Your task to perform on an android device: uninstall "LinkedIn" Image 0: 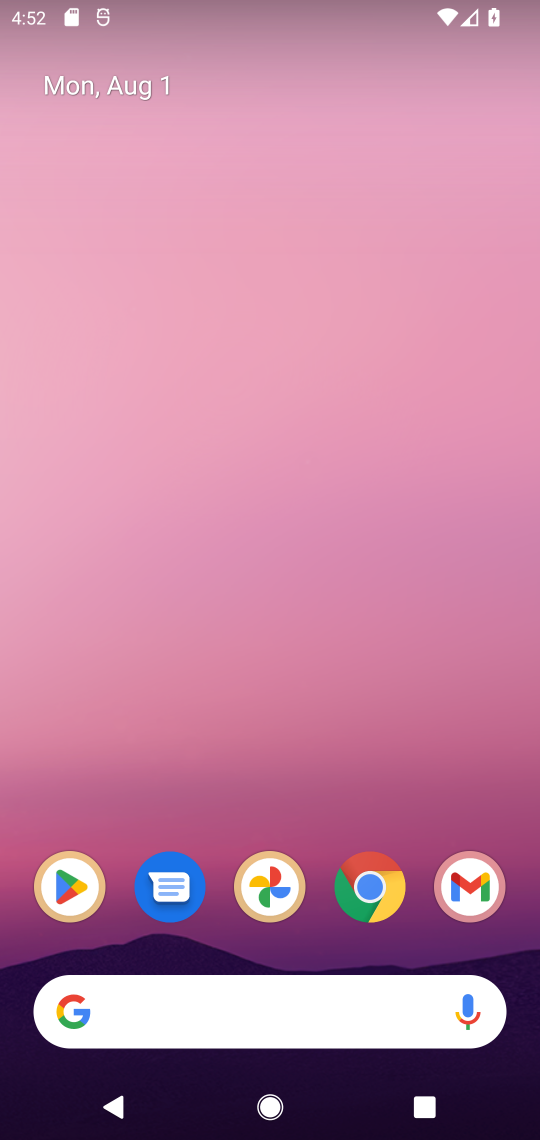
Step 0: drag from (278, 951) to (215, 278)
Your task to perform on an android device: uninstall "LinkedIn" Image 1: 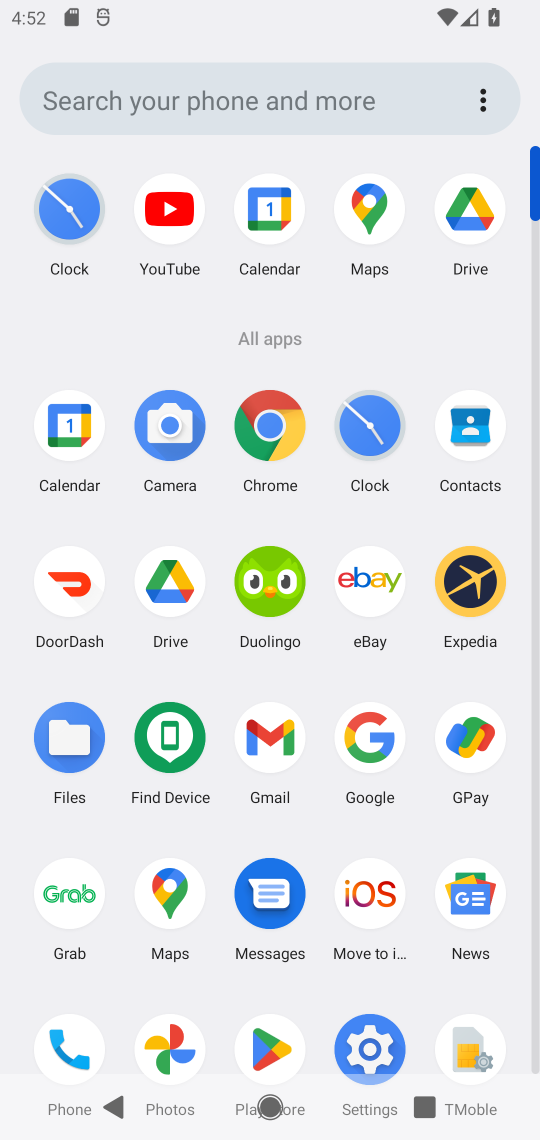
Step 1: click (258, 1033)
Your task to perform on an android device: uninstall "LinkedIn" Image 2: 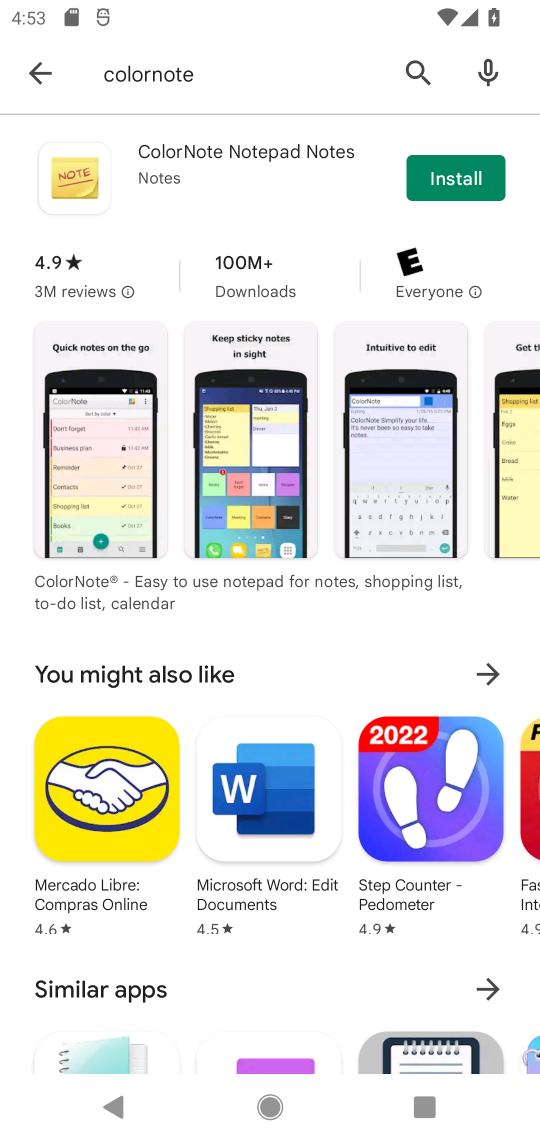
Step 2: click (29, 60)
Your task to perform on an android device: uninstall "LinkedIn" Image 3: 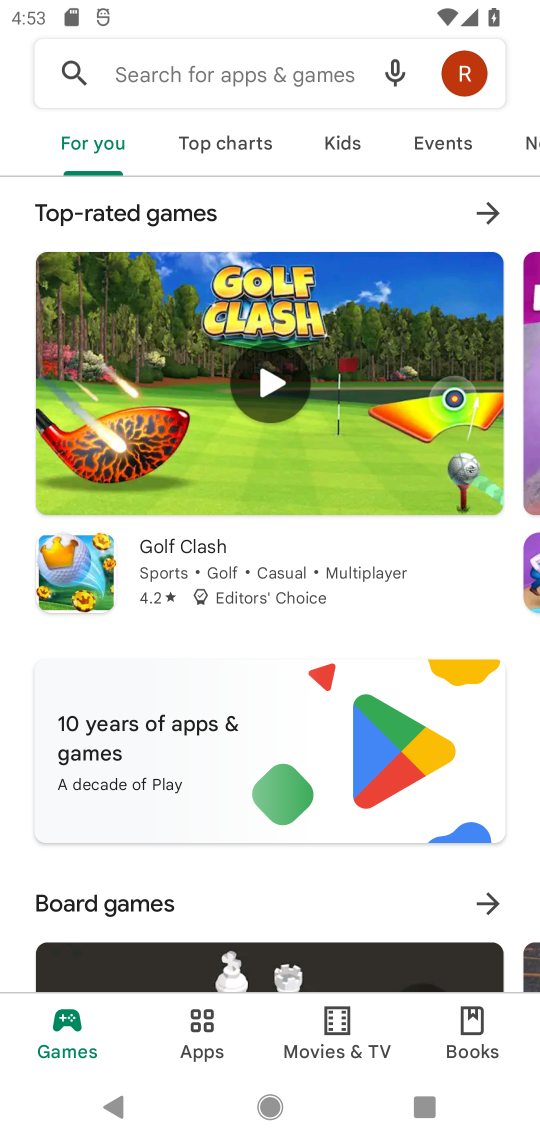
Step 3: click (201, 76)
Your task to perform on an android device: uninstall "LinkedIn" Image 4: 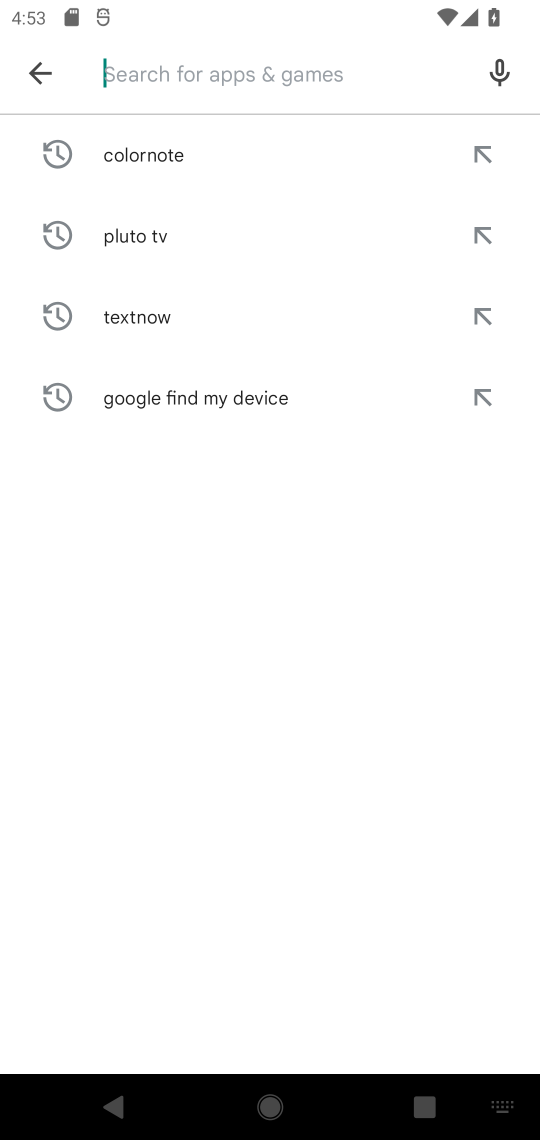
Step 4: type "LinkedIn"
Your task to perform on an android device: uninstall "LinkedIn" Image 5: 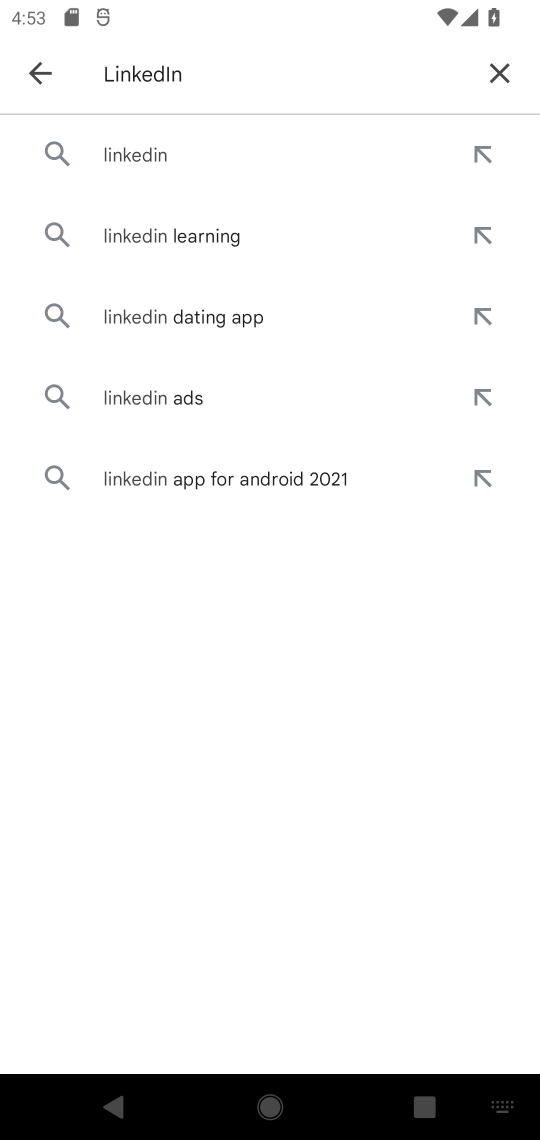
Step 5: click (161, 141)
Your task to perform on an android device: uninstall "LinkedIn" Image 6: 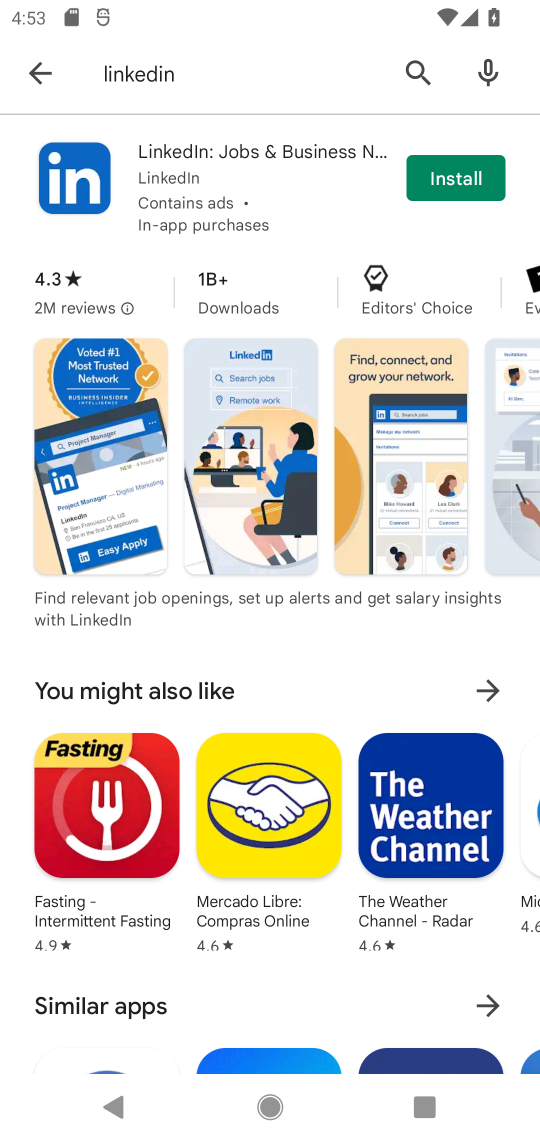
Step 6: task complete